Your task to perform on an android device: Open settings Image 0: 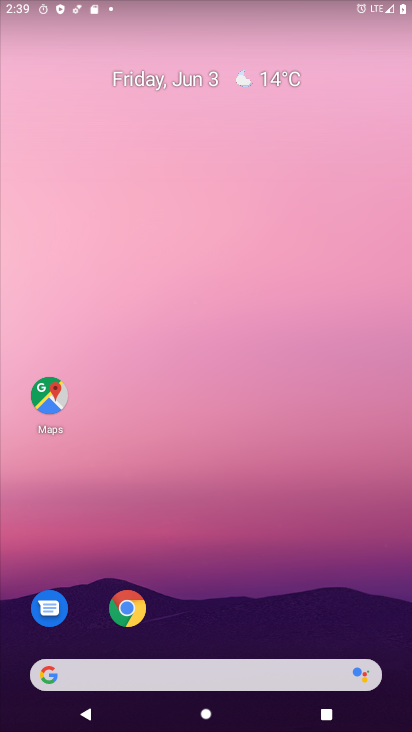
Step 0: drag from (225, 671) to (365, 0)
Your task to perform on an android device: Open settings Image 1: 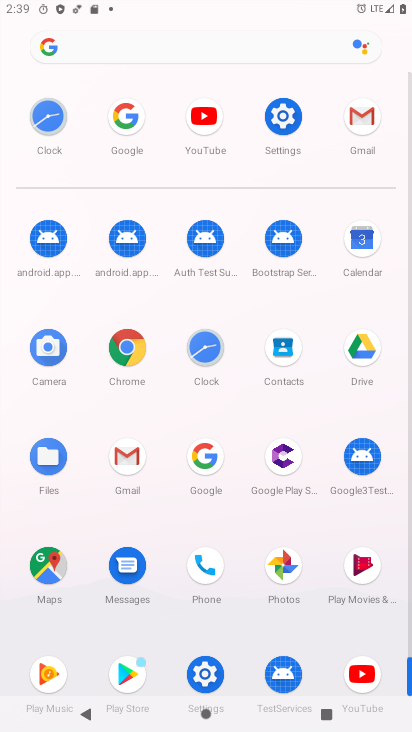
Step 1: click (287, 120)
Your task to perform on an android device: Open settings Image 2: 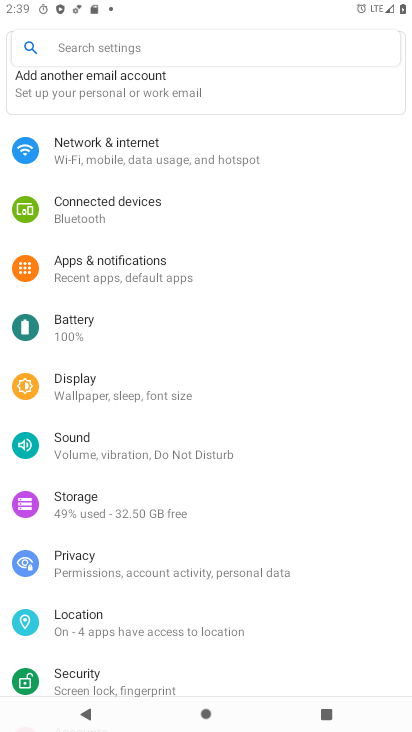
Step 2: task complete